Your task to perform on an android device: turn on showing notifications on the lock screen Image 0: 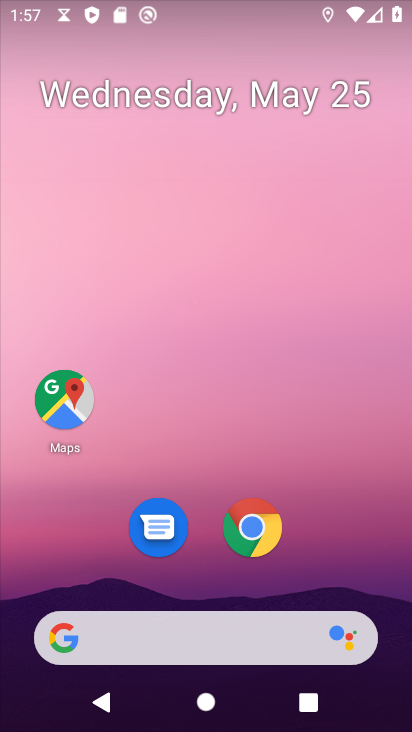
Step 0: drag from (91, 597) to (168, 108)
Your task to perform on an android device: turn on showing notifications on the lock screen Image 1: 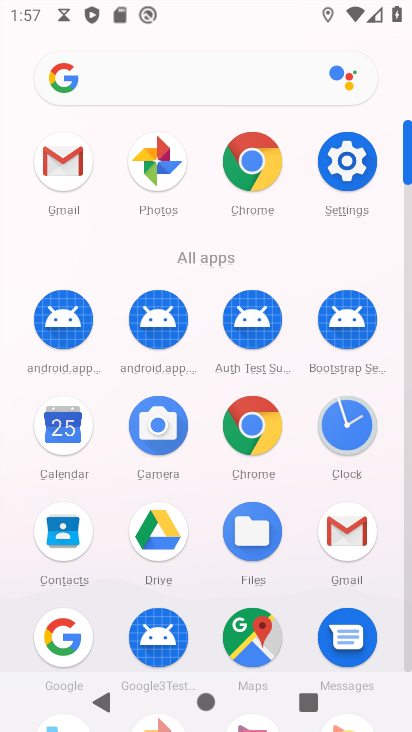
Step 1: drag from (129, 661) to (196, 316)
Your task to perform on an android device: turn on showing notifications on the lock screen Image 2: 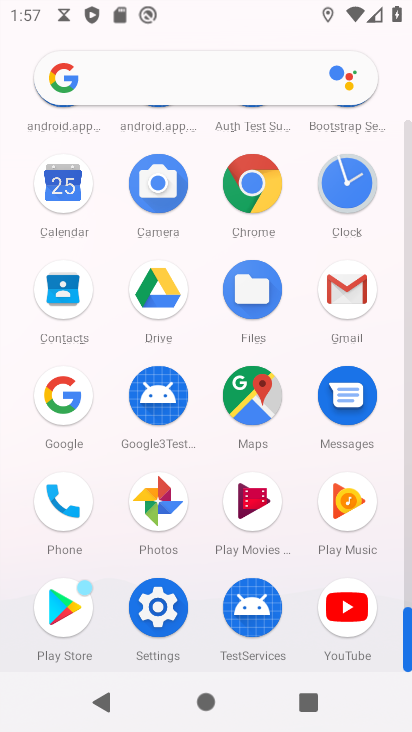
Step 2: click (173, 622)
Your task to perform on an android device: turn on showing notifications on the lock screen Image 3: 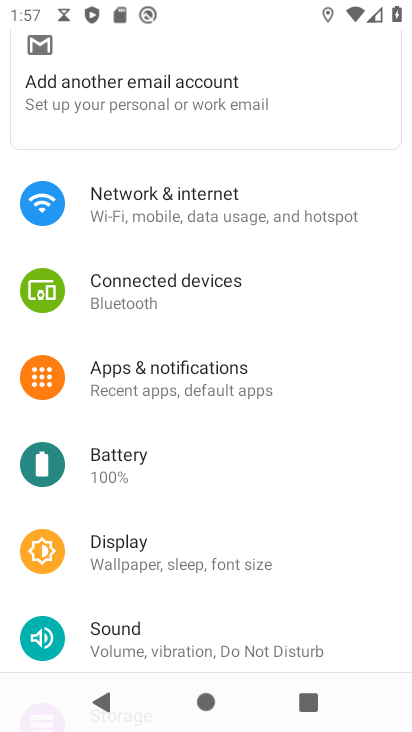
Step 3: click (215, 375)
Your task to perform on an android device: turn on showing notifications on the lock screen Image 4: 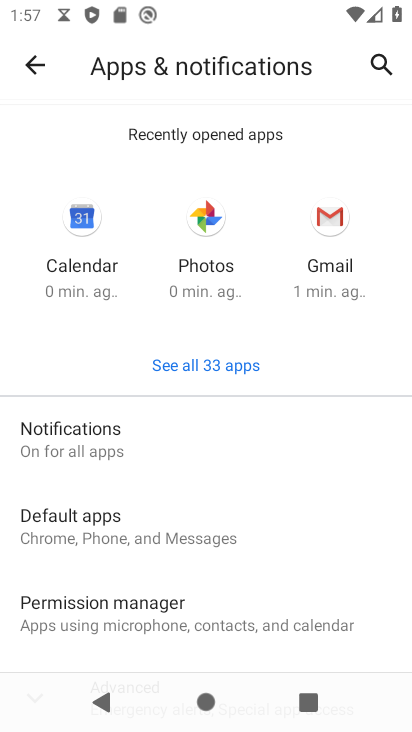
Step 4: click (156, 451)
Your task to perform on an android device: turn on showing notifications on the lock screen Image 5: 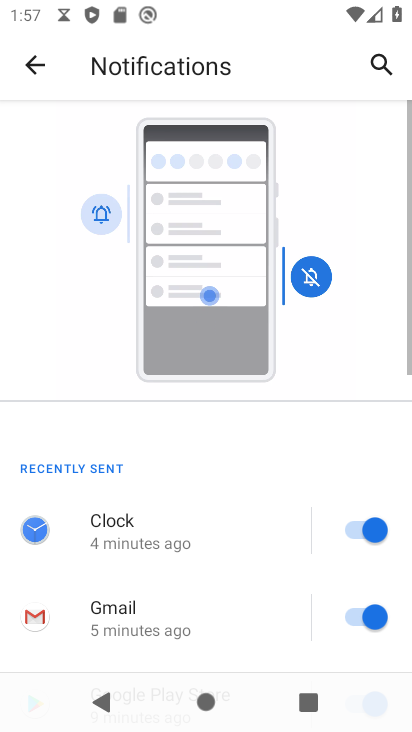
Step 5: task complete